Your task to perform on an android device: add a contact Image 0: 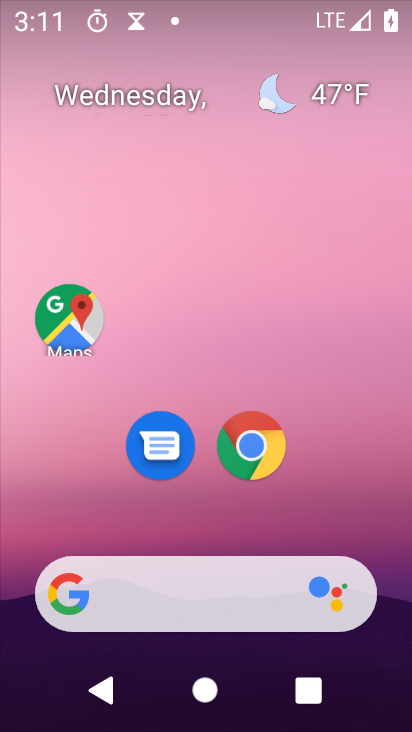
Step 0: drag from (385, 537) to (1, 345)
Your task to perform on an android device: add a contact Image 1: 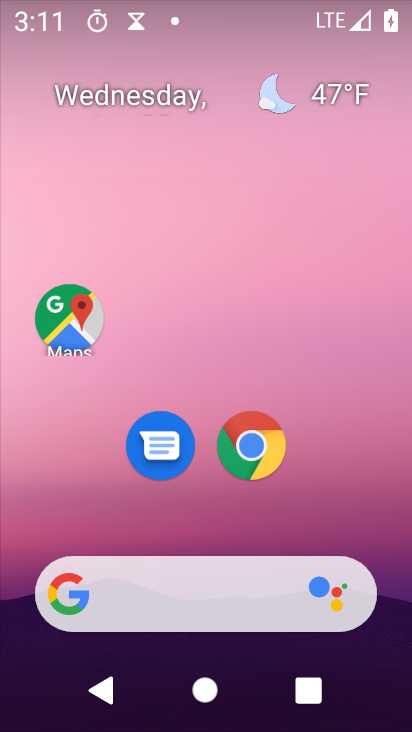
Step 1: drag from (389, 541) to (378, 6)
Your task to perform on an android device: add a contact Image 2: 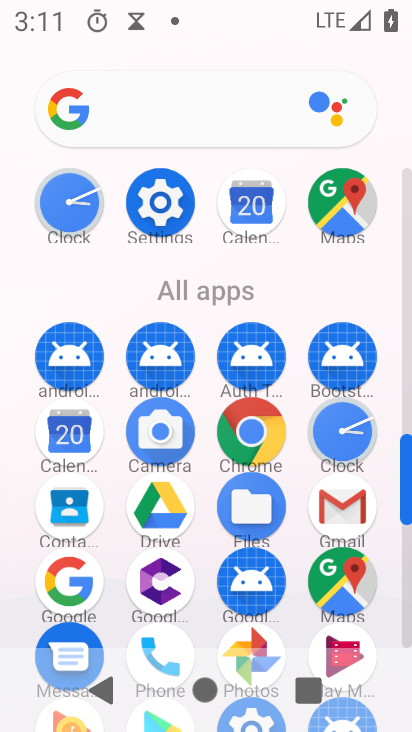
Step 2: click (55, 514)
Your task to perform on an android device: add a contact Image 3: 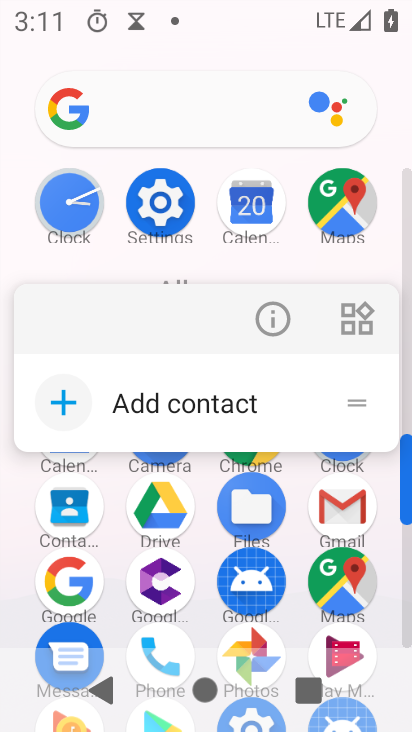
Step 3: click (70, 511)
Your task to perform on an android device: add a contact Image 4: 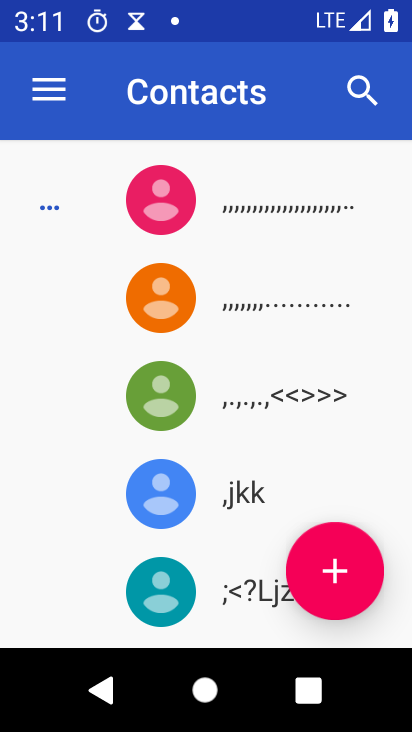
Step 4: click (326, 573)
Your task to perform on an android device: add a contact Image 5: 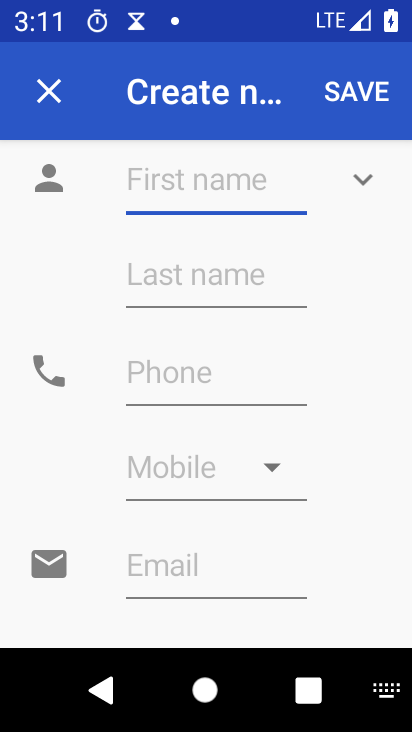
Step 5: click (140, 167)
Your task to perform on an android device: add a contact Image 6: 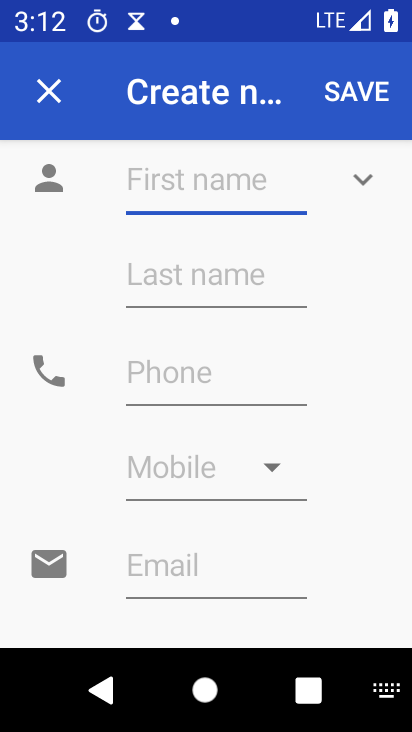
Step 6: type "nancy"
Your task to perform on an android device: add a contact Image 7: 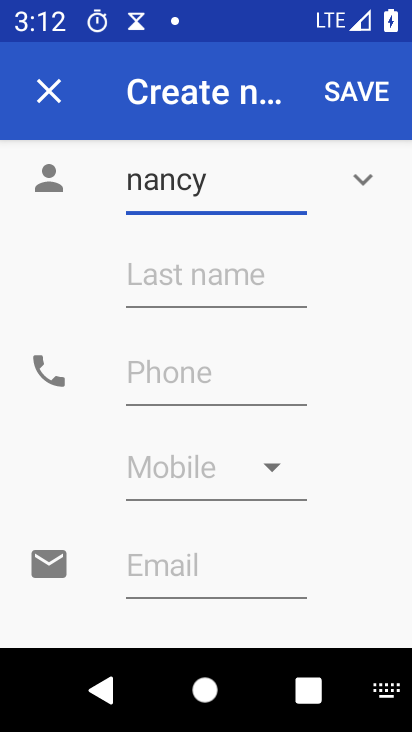
Step 7: click (190, 368)
Your task to perform on an android device: add a contact Image 8: 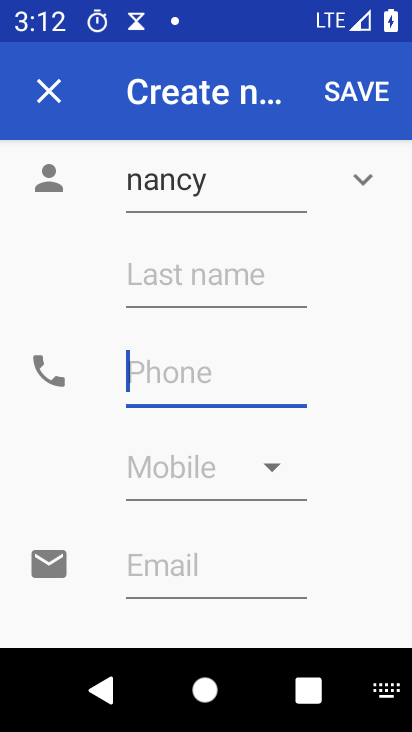
Step 8: click (343, 380)
Your task to perform on an android device: add a contact Image 9: 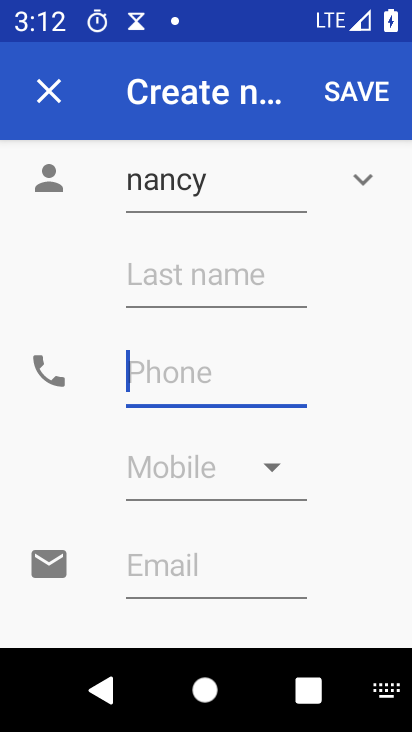
Step 9: type "3456765432"
Your task to perform on an android device: add a contact Image 10: 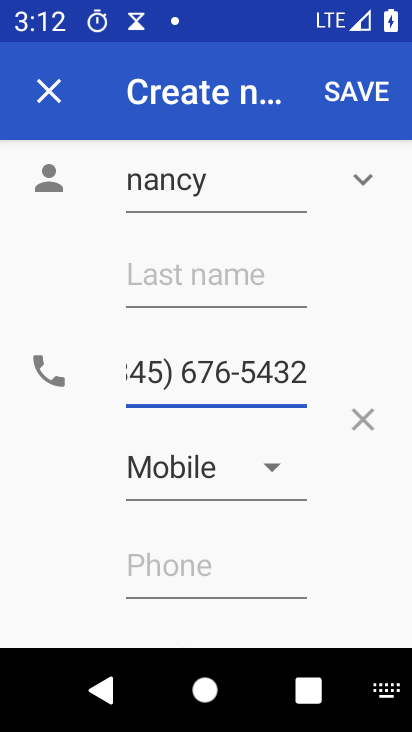
Step 10: click (374, 96)
Your task to perform on an android device: add a contact Image 11: 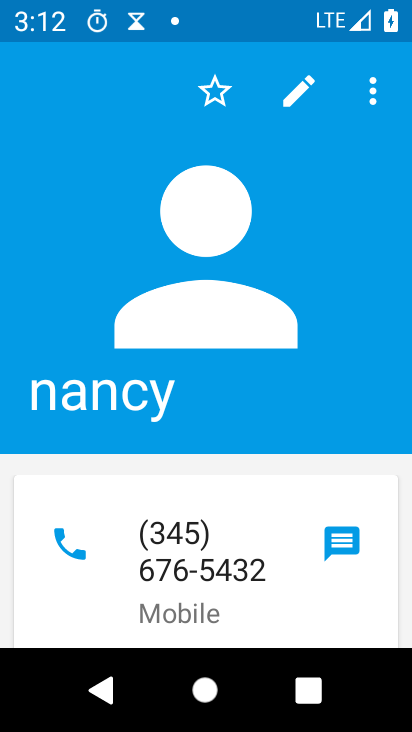
Step 11: task complete